Your task to perform on an android device: turn off sleep mode Image 0: 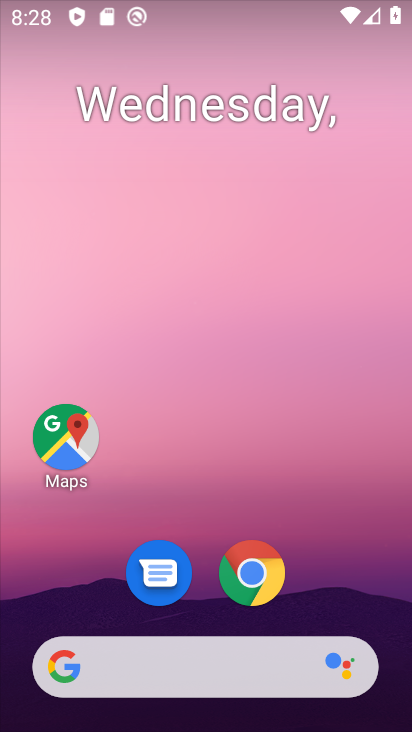
Step 0: drag from (251, 498) to (281, 103)
Your task to perform on an android device: turn off sleep mode Image 1: 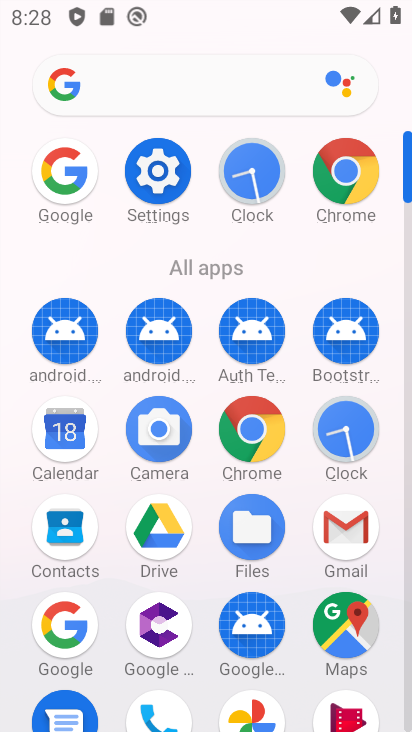
Step 1: click (172, 188)
Your task to perform on an android device: turn off sleep mode Image 2: 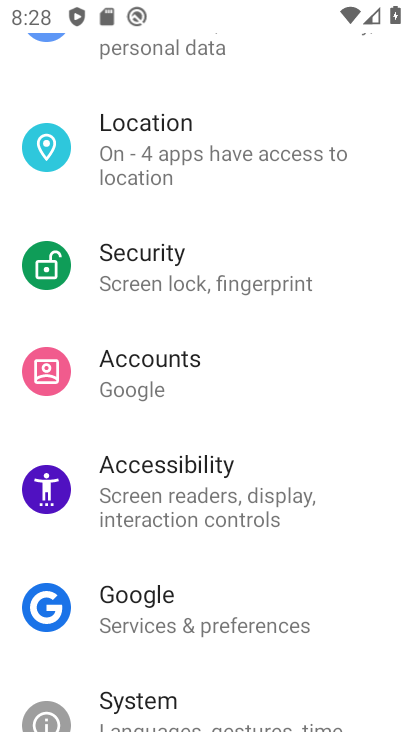
Step 2: drag from (185, 418) to (198, 310)
Your task to perform on an android device: turn off sleep mode Image 3: 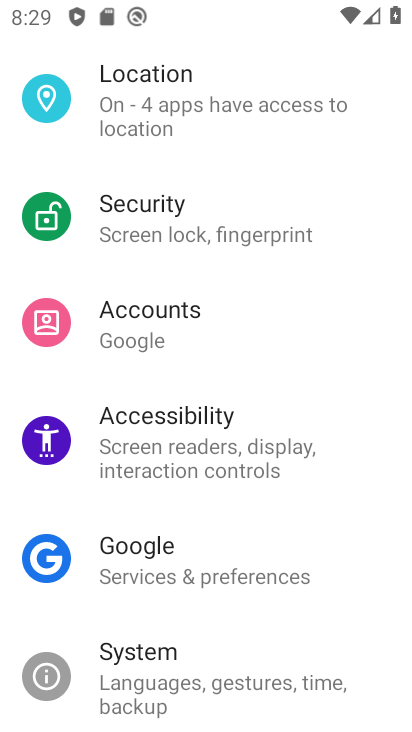
Step 3: drag from (255, 361) to (319, 671)
Your task to perform on an android device: turn off sleep mode Image 4: 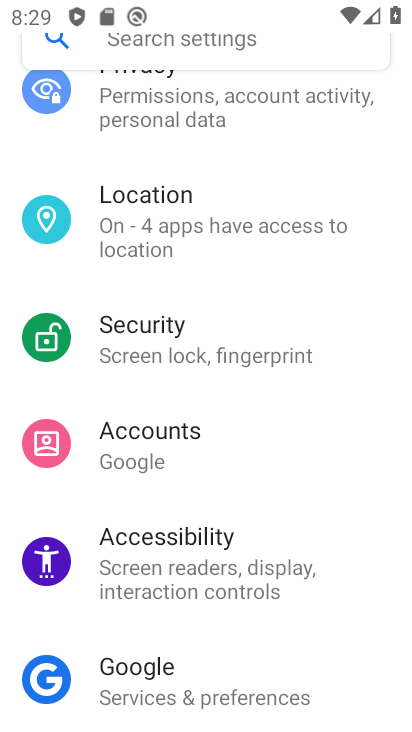
Step 4: drag from (174, 251) to (181, 718)
Your task to perform on an android device: turn off sleep mode Image 5: 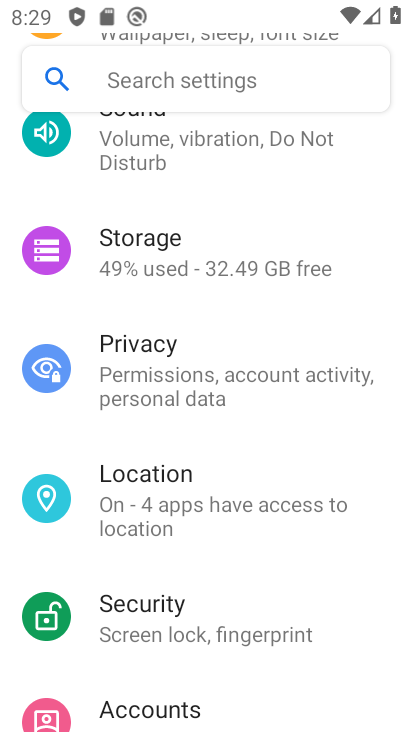
Step 5: drag from (166, 311) to (171, 693)
Your task to perform on an android device: turn off sleep mode Image 6: 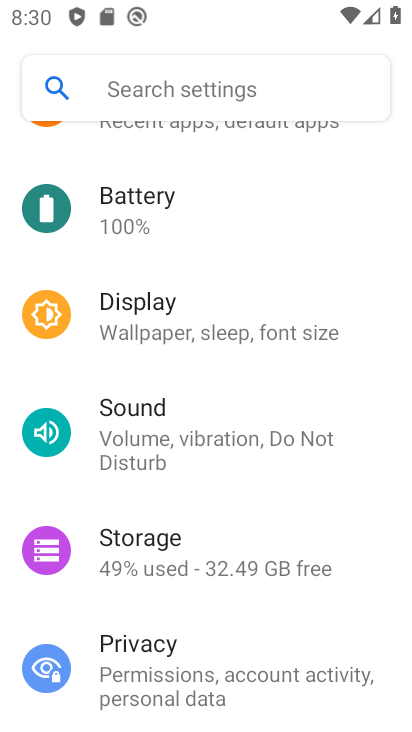
Step 6: click (190, 325)
Your task to perform on an android device: turn off sleep mode Image 7: 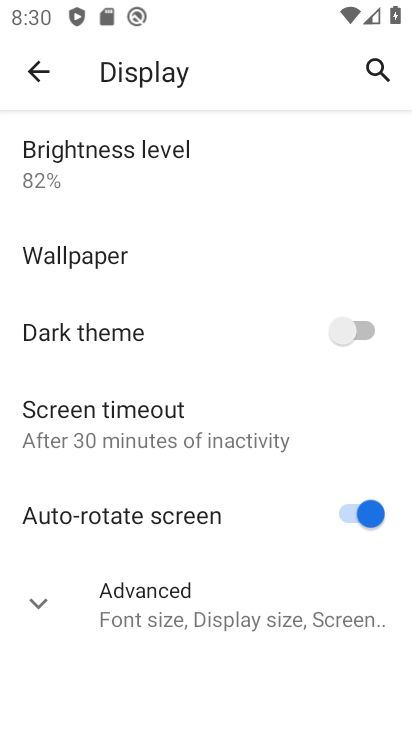
Step 7: task complete